Your task to perform on an android device: Search for Mexican restaurants on Maps Image 0: 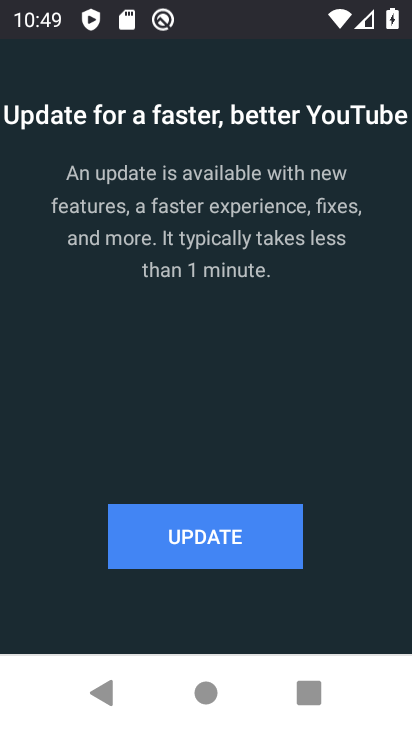
Step 0: drag from (179, 650) to (214, 247)
Your task to perform on an android device: Search for Mexican restaurants on Maps Image 1: 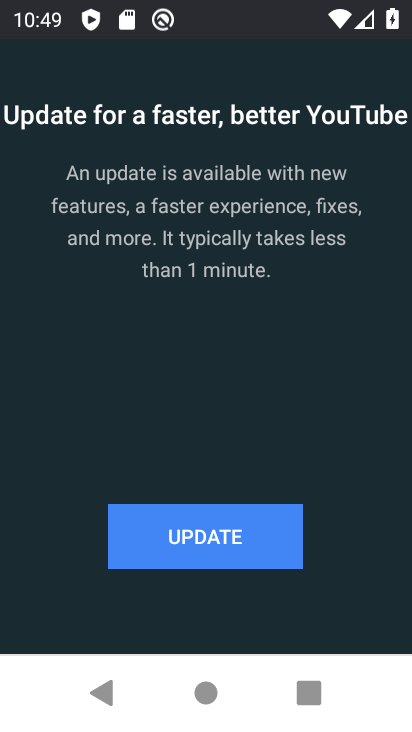
Step 1: press home button
Your task to perform on an android device: Search for Mexican restaurants on Maps Image 2: 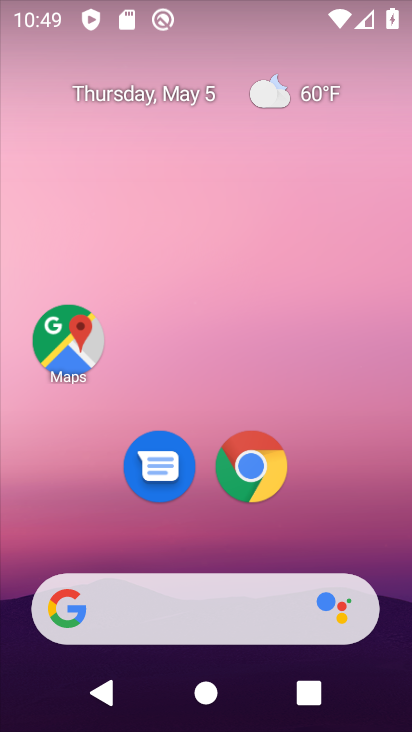
Step 2: click (60, 334)
Your task to perform on an android device: Search for Mexican restaurants on Maps Image 3: 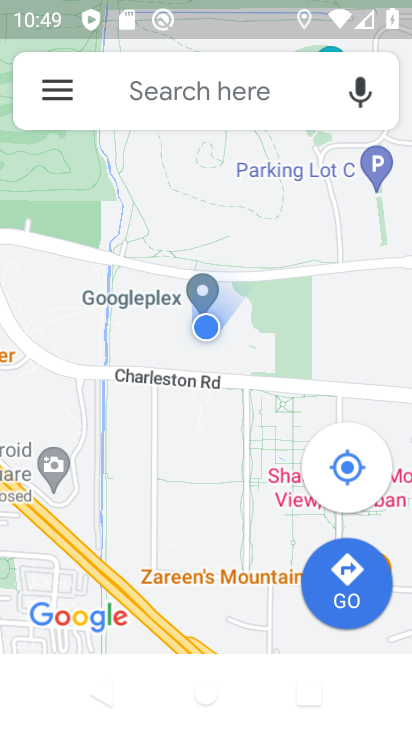
Step 3: click (194, 95)
Your task to perform on an android device: Search for Mexican restaurants on Maps Image 4: 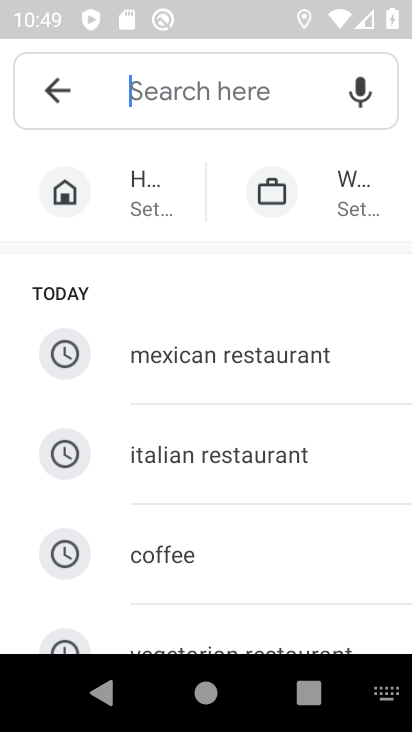
Step 4: click (201, 350)
Your task to perform on an android device: Search for Mexican restaurants on Maps Image 5: 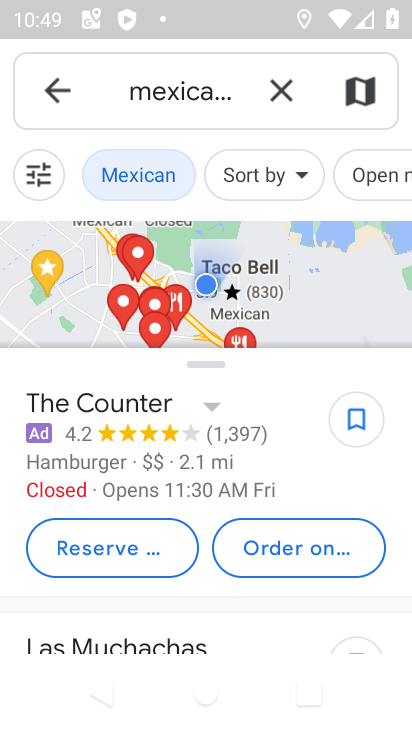
Step 5: task complete